Your task to perform on an android device: open app "Clock" (install if not already installed) Image 0: 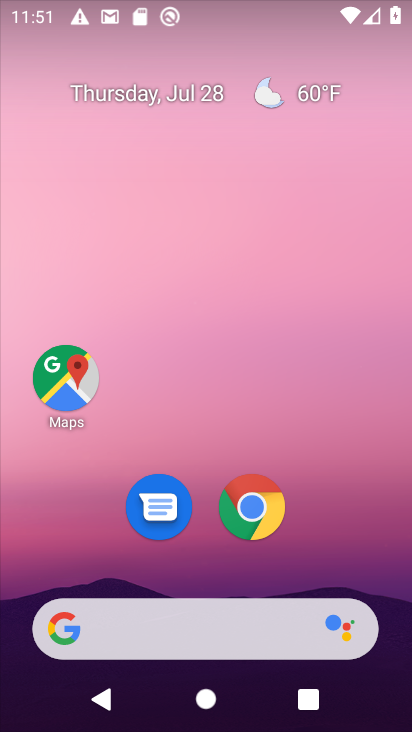
Step 0: drag from (203, 580) to (159, 9)
Your task to perform on an android device: open app "Clock" (install if not already installed) Image 1: 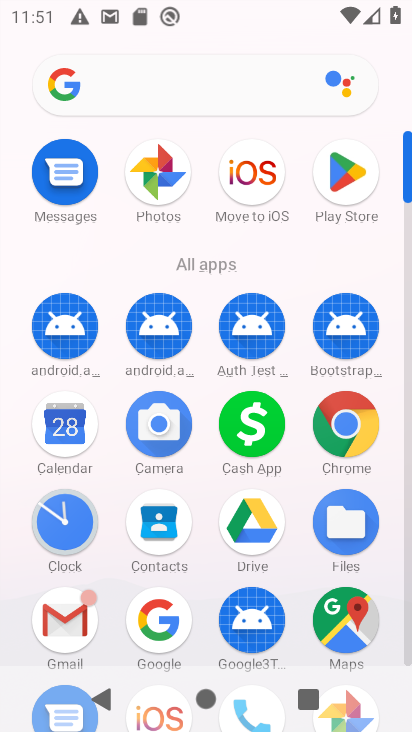
Step 1: click (338, 207)
Your task to perform on an android device: open app "Clock" (install if not already installed) Image 2: 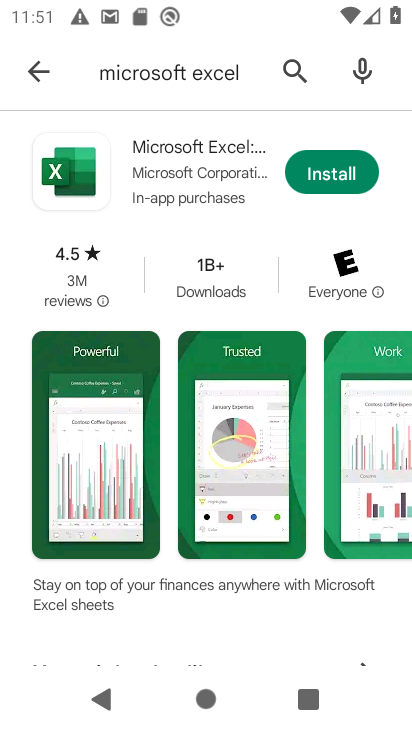
Step 2: click (154, 77)
Your task to perform on an android device: open app "Clock" (install if not already installed) Image 3: 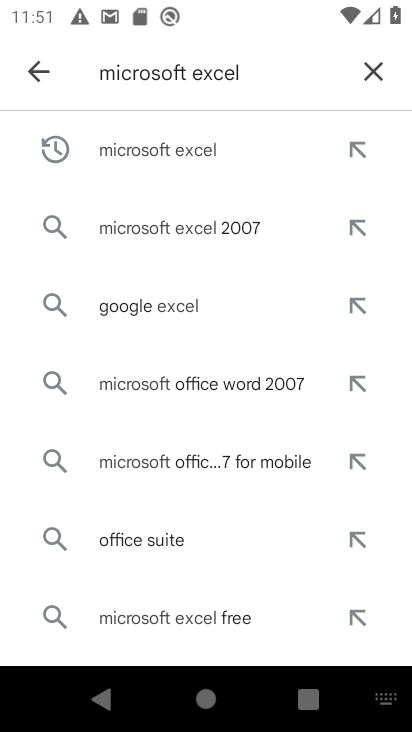
Step 3: click (361, 73)
Your task to perform on an android device: open app "Clock" (install if not already installed) Image 4: 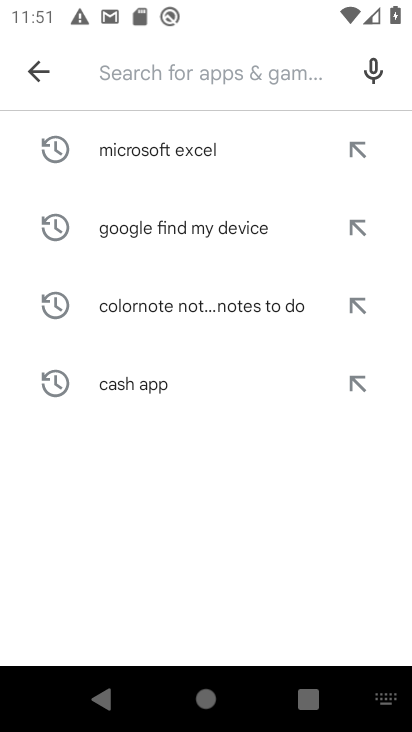
Step 4: type "clock"
Your task to perform on an android device: open app "Clock" (install if not already installed) Image 5: 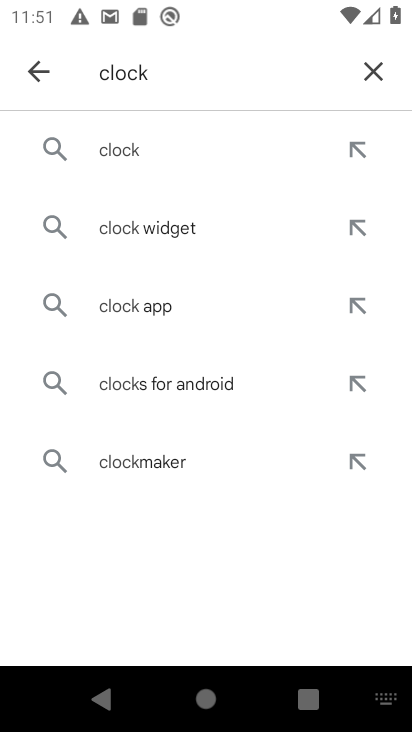
Step 5: click (156, 163)
Your task to perform on an android device: open app "Clock" (install if not already installed) Image 6: 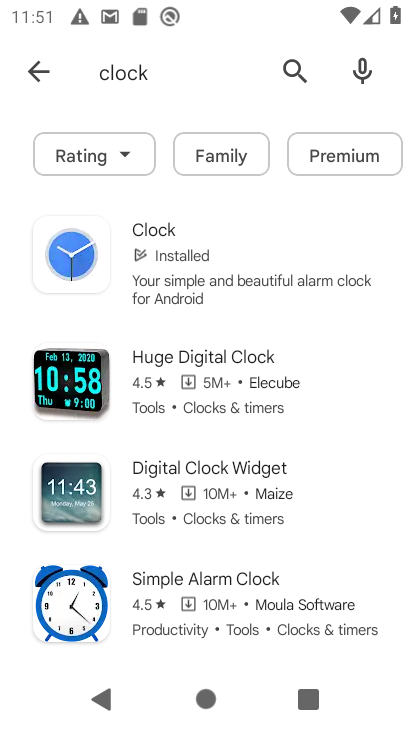
Step 6: click (160, 246)
Your task to perform on an android device: open app "Clock" (install if not already installed) Image 7: 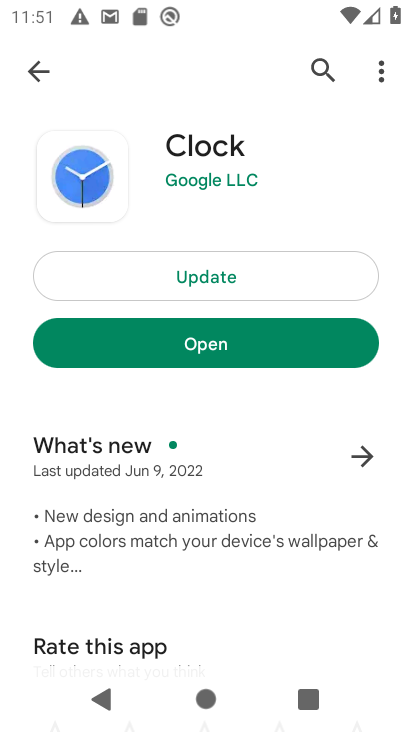
Step 7: click (167, 348)
Your task to perform on an android device: open app "Clock" (install if not already installed) Image 8: 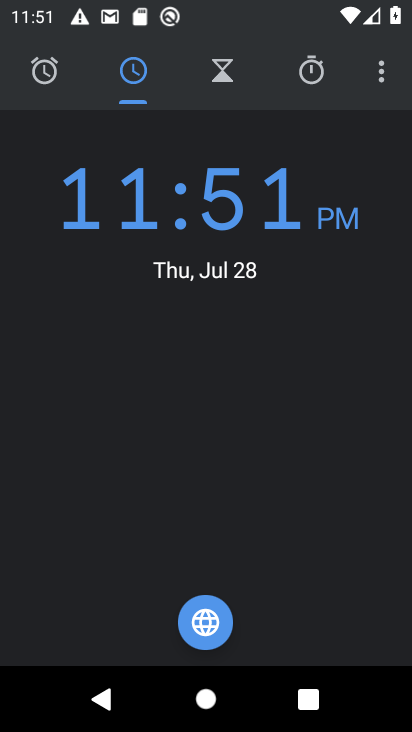
Step 8: task complete